Your task to perform on an android device: turn notification dots on Image 0: 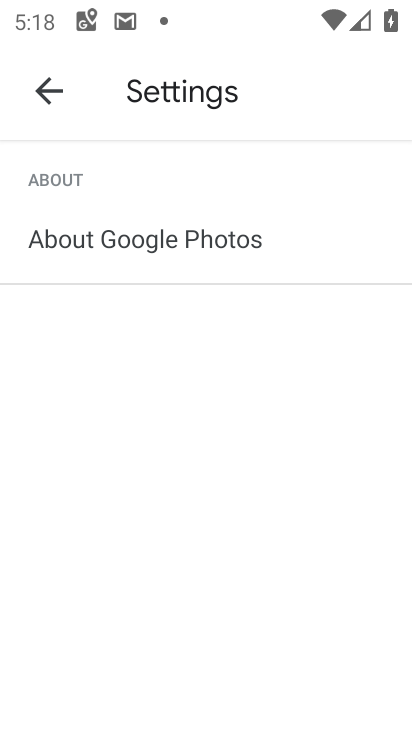
Step 0: click (44, 94)
Your task to perform on an android device: turn notification dots on Image 1: 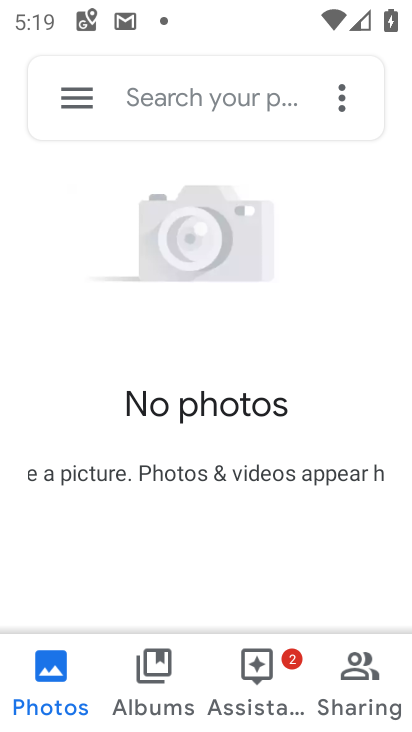
Step 1: click (71, 88)
Your task to perform on an android device: turn notification dots on Image 2: 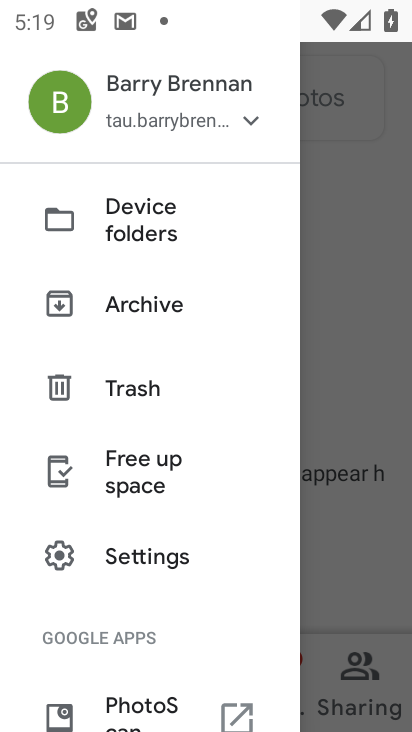
Step 2: click (147, 556)
Your task to perform on an android device: turn notification dots on Image 3: 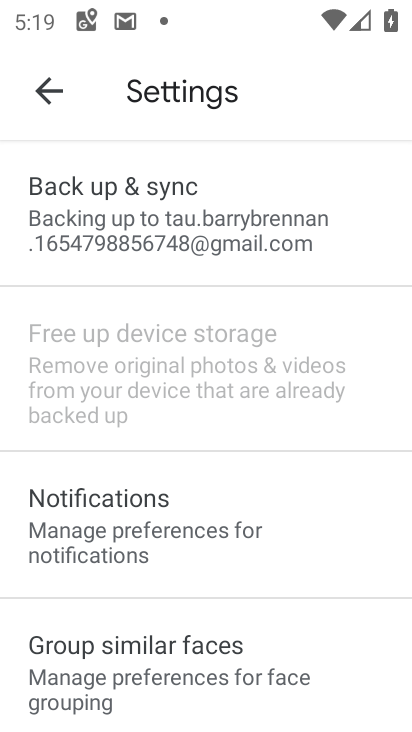
Step 3: press home button
Your task to perform on an android device: turn notification dots on Image 4: 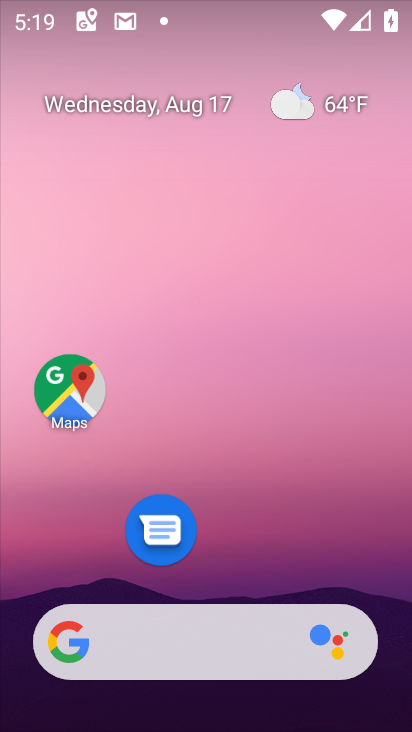
Step 4: drag from (187, 352) to (166, 128)
Your task to perform on an android device: turn notification dots on Image 5: 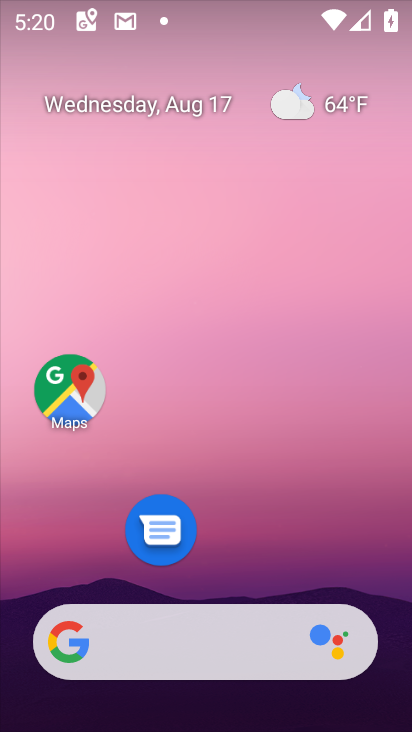
Step 5: drag from (236, 436) to (211, 105)
Your task to perform on an android device: turn notification dots on Image 6: 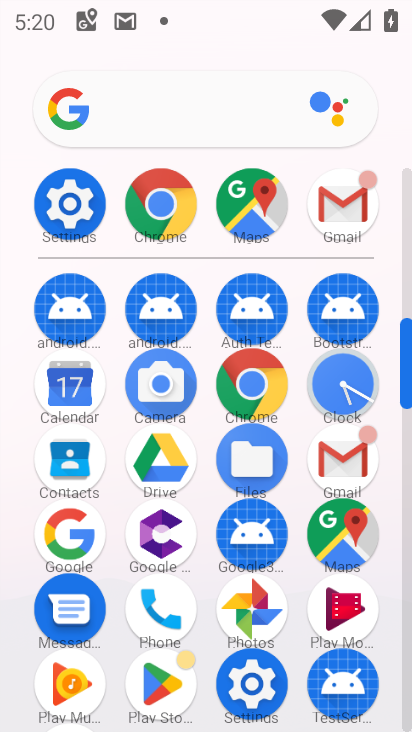
Step 6: click (67, 195)
Your task to perform on an android device: turn notification dots on Image 7: 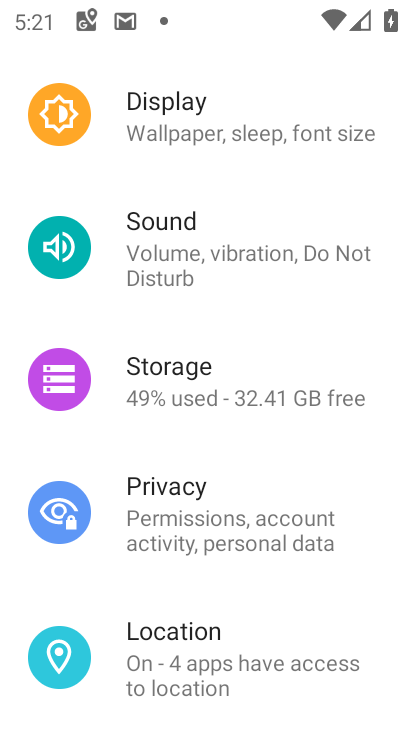
Step 7: drag from (227, 666) to (244, 382)
Your task to perform on an android device: turn notification dots on Image 8: 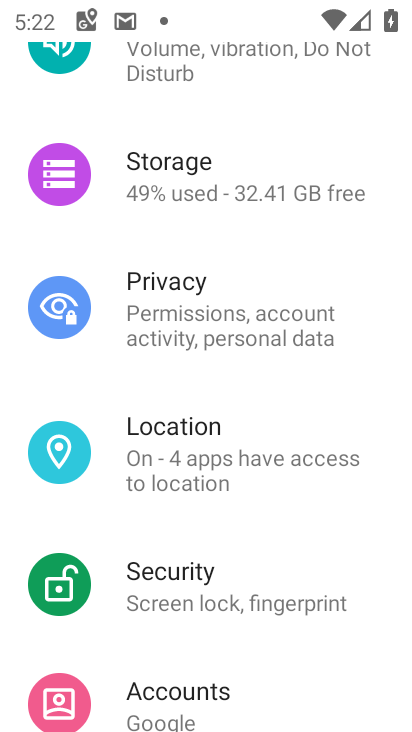
Step 8: drag from (173, 371) to (171, 305)
Your task to perform on an android device: turn notification dots on Image 9: 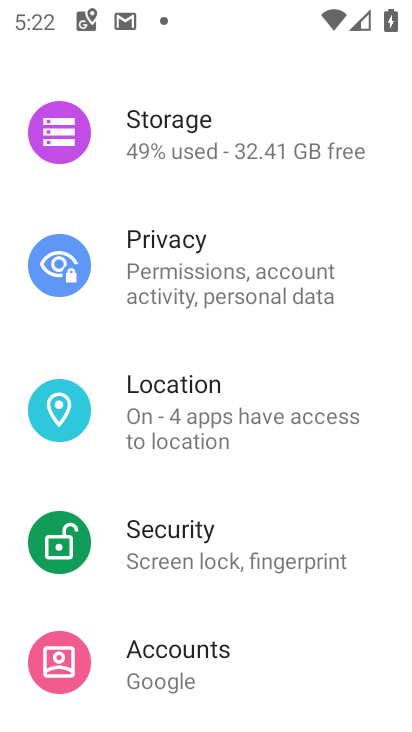
Step 9: drag from (243, 502) to (187, 103)
Your task to perform on an android device: turn notification dots on Image 10: 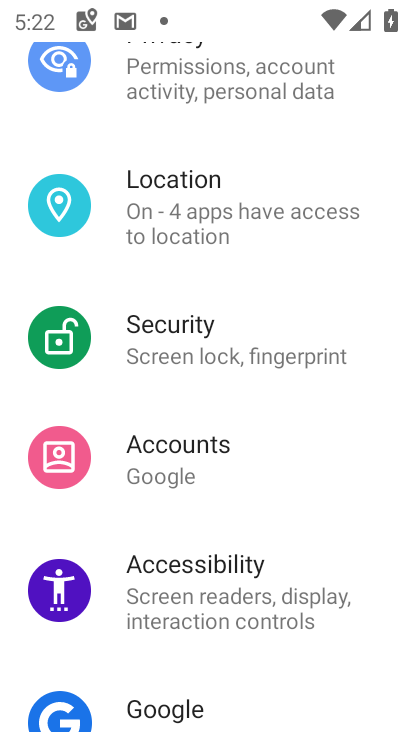
Step 10: drag from (199, 607) to (199, 276)
Your task to perform on an android device: turn notification dots on Image 11: 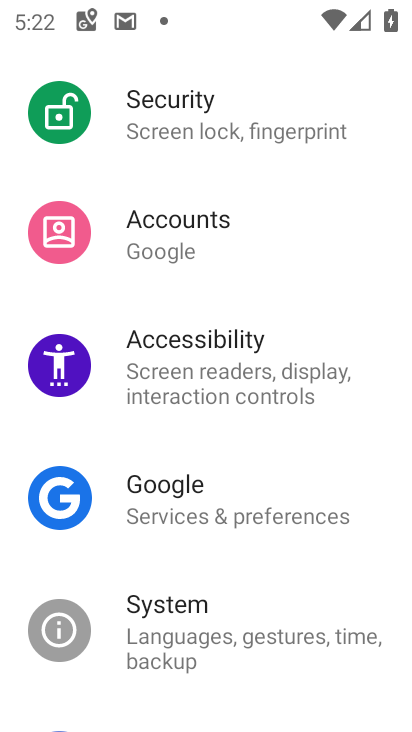
Step 11: drag from (212, 221) to (270, 719)
Your task to perform on an android device: turn notification dots on Image 12: 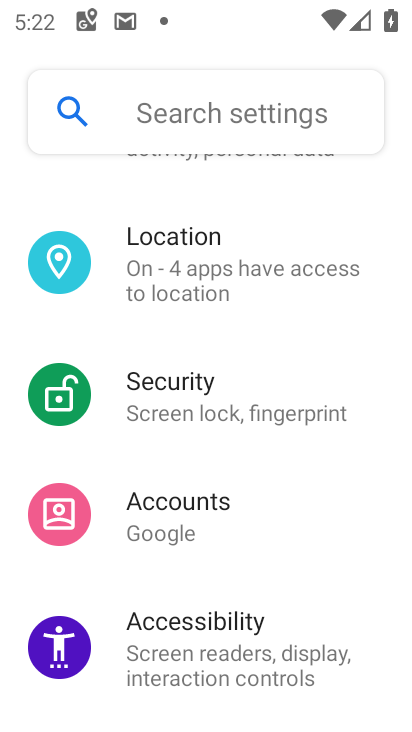
Step 12: drag from (205, 286) to (205, 687)
Your task to perform on an android device: turn notification dots on Image 13: 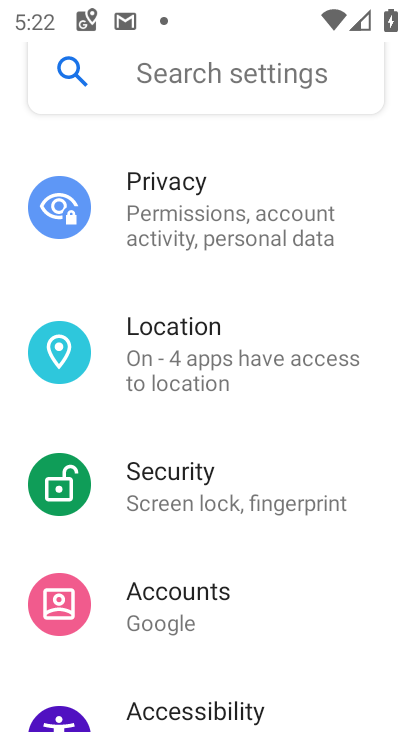
Step 13: drag from (232, 316) to (219, 679)
Your task to perform on an android device: turn notification dots on Image 14: 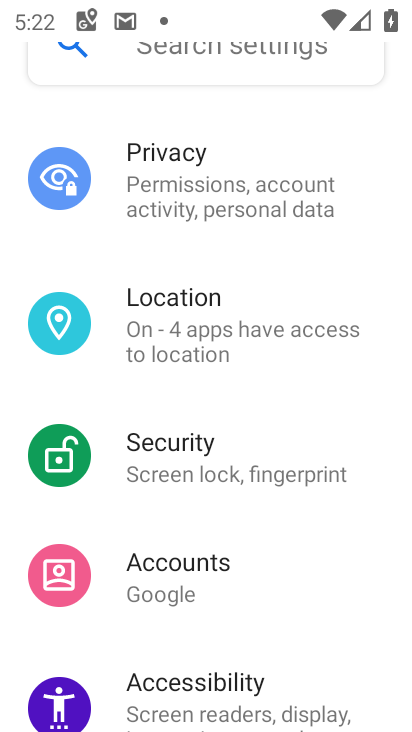
Step 14: drag from (235, 340) to (235, 423)
Your task to perform on an android device: turn notification dots on Image 15: 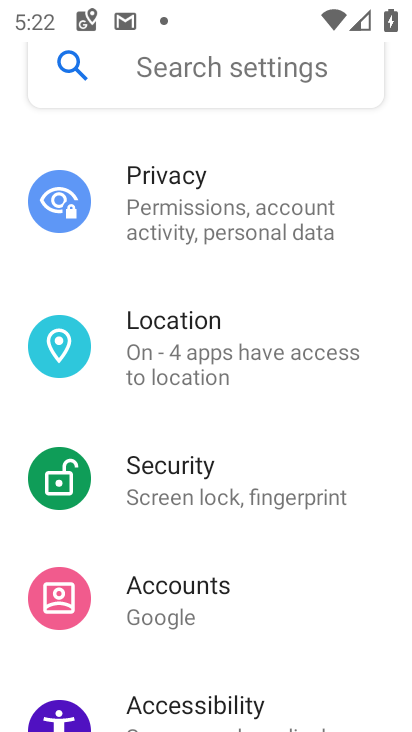
Step 15: drag from (210, 426) to (250, 726)
Your task to perform on an android device: turn notification dots on Image 16: 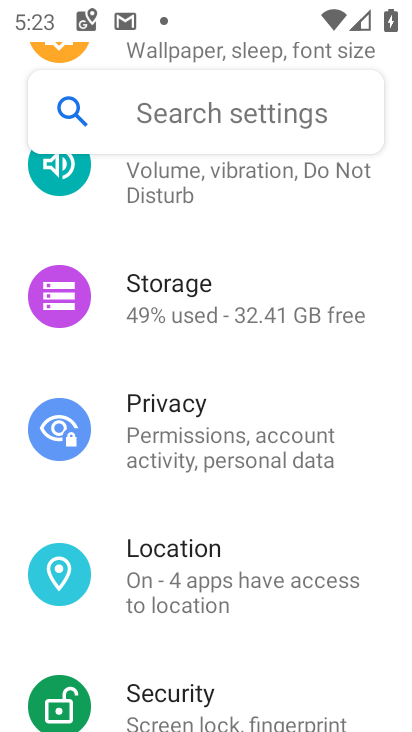
Step 16: drag from (287, 299) to (233, 711)
Your task to perform on an android device: turn notification dots on Image 17: 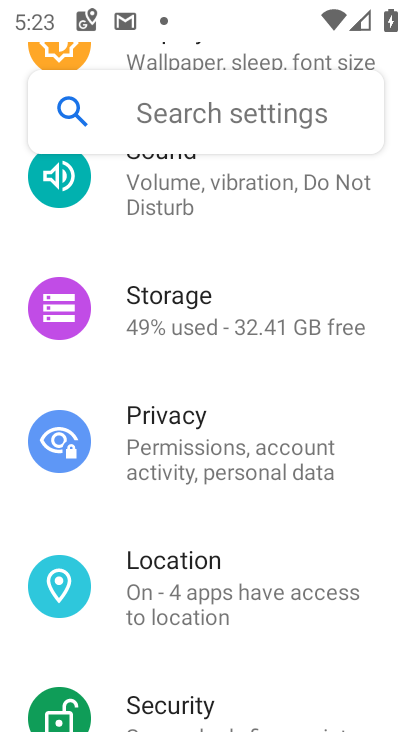
Step 17: drag from (242, 374) to (208, 714)
Your task to perform on an android device: turn notification dots on Image 18: 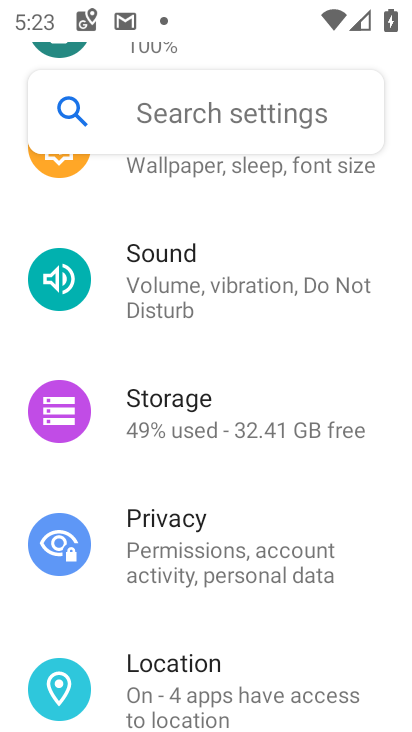
Step 18: drag from (209, 273) to (233, 659)
Your task to perform on an android device: turn notification dots on Image 19: 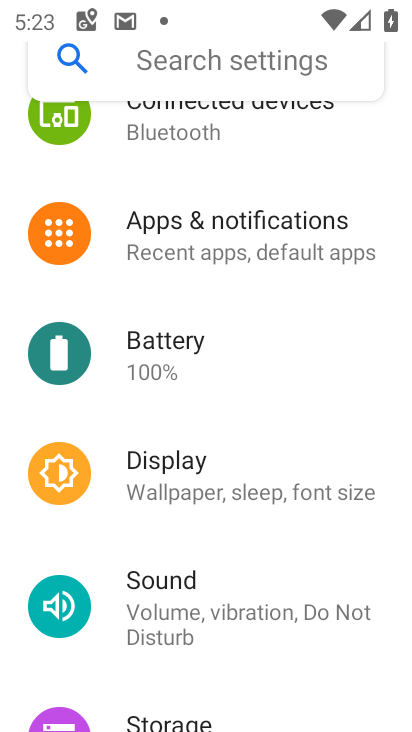
Step 19: click (193, 305)
Your task to perform on an android device: turn notification dots on Image 20: 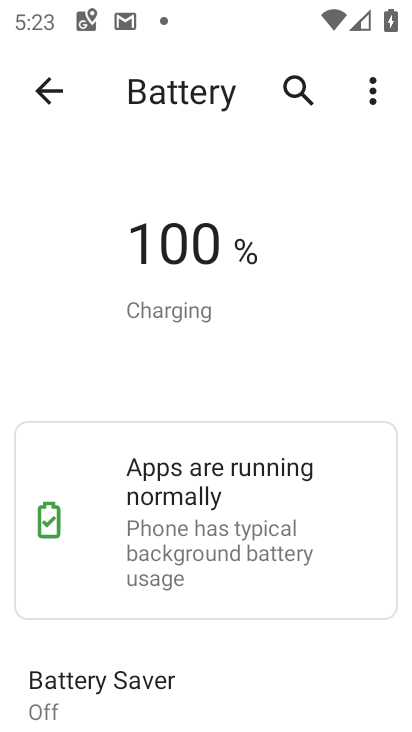
Step 20: click (38, 86)
Your task to perform on an android device: turn notification dots on Image 21: 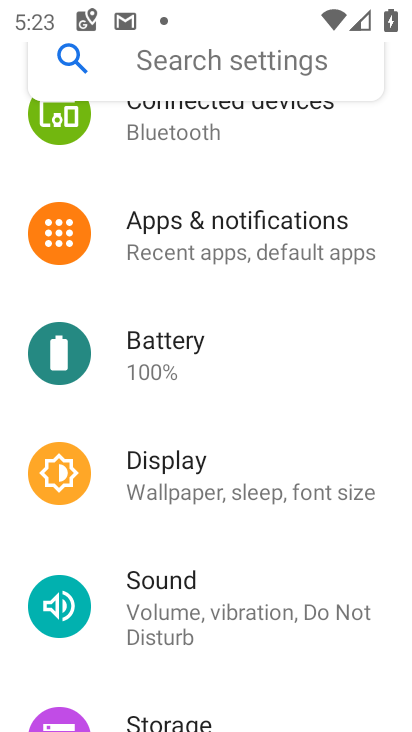
Step 21: click (213, 252)
Your task to perform on an android device: turn notification dots on Image 22: 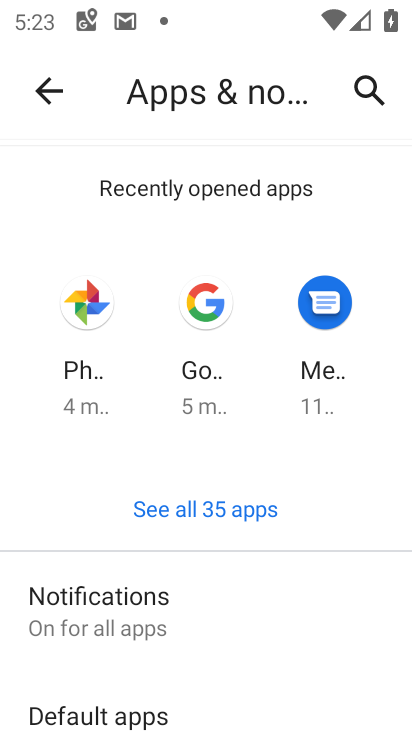
Step 22: click (95, 615)
Your task to perform on an android device: turn notification dots on Image 23: 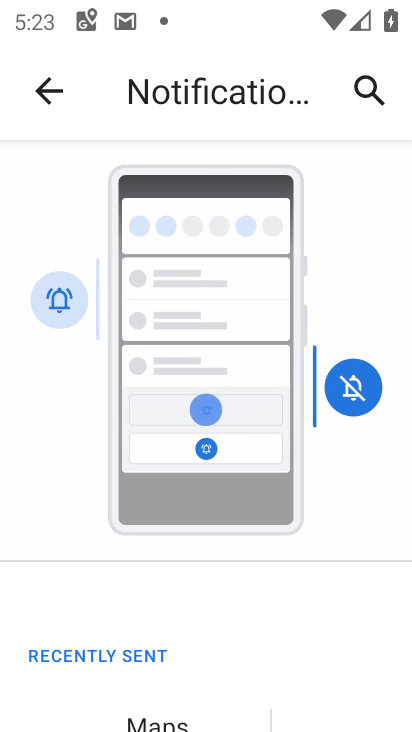
Step 23: drag from (179, 666) to (179, 336)
Your task to perform on an android device: turn notification dots on Image 24: 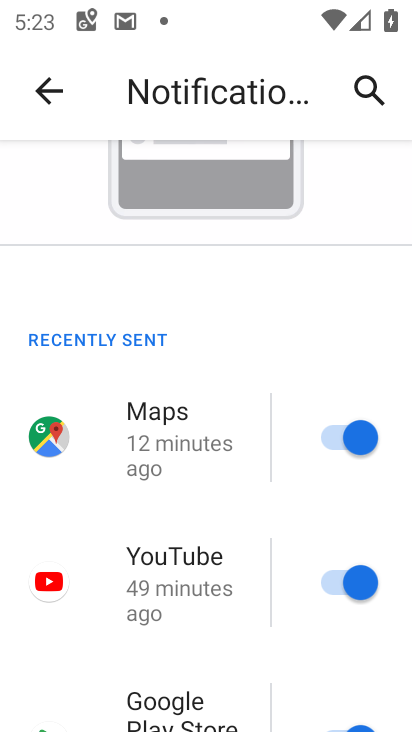
Step 24: drag from (199, 630) to (189, 238)
Your task to perform on an android device: turn notification dots on Image 25: 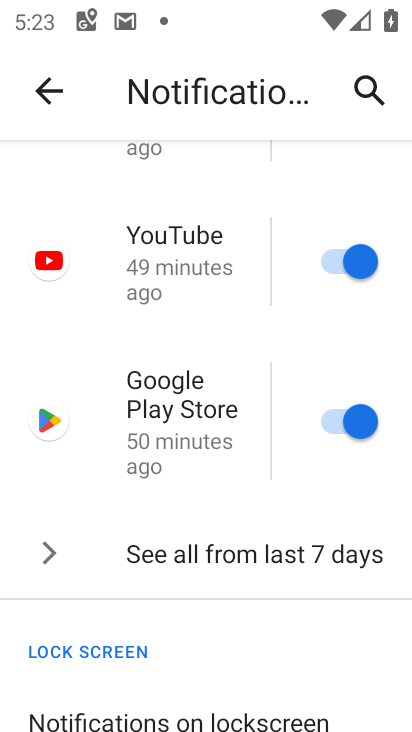
Step 25: drag from (198, 609) to (220, 252)
Your task to perform on an android device: turn notification dots on Image 26: 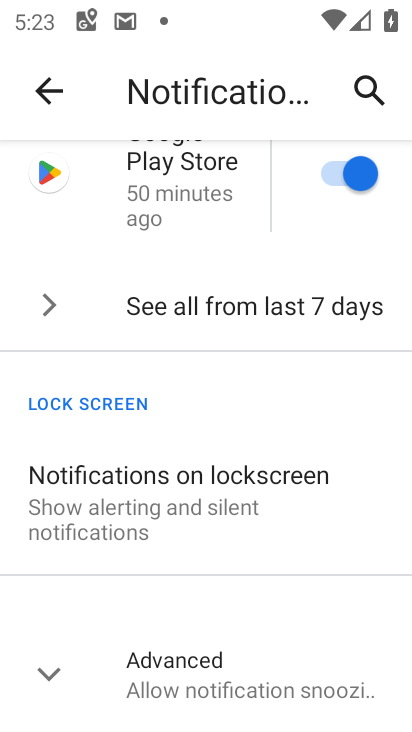
Step 26: click (148, 682)
Your task to perform on an android device: turn notification dots on Image 27: 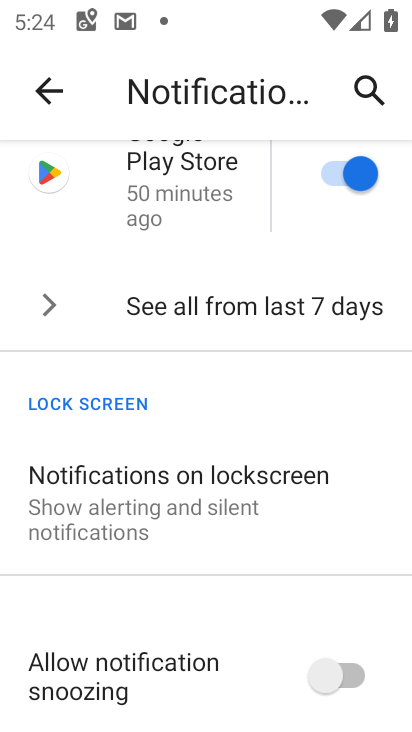
Step 27: task complete